Your task to perform on an android device: Go to battery settings Image 0: 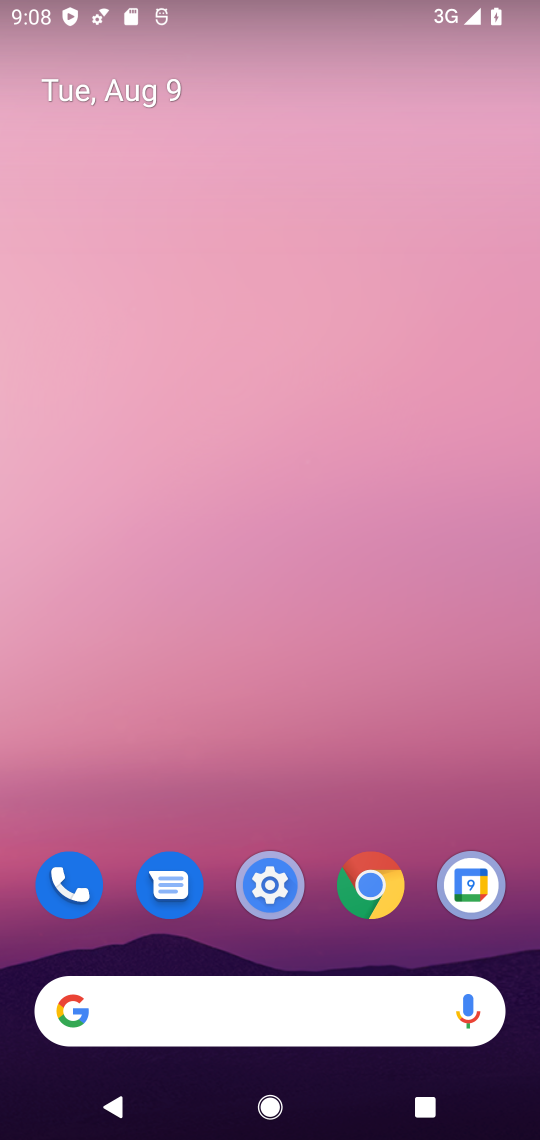
Step 0: press home button
Your task to perform on an android device: Go to battery settings Image 1: 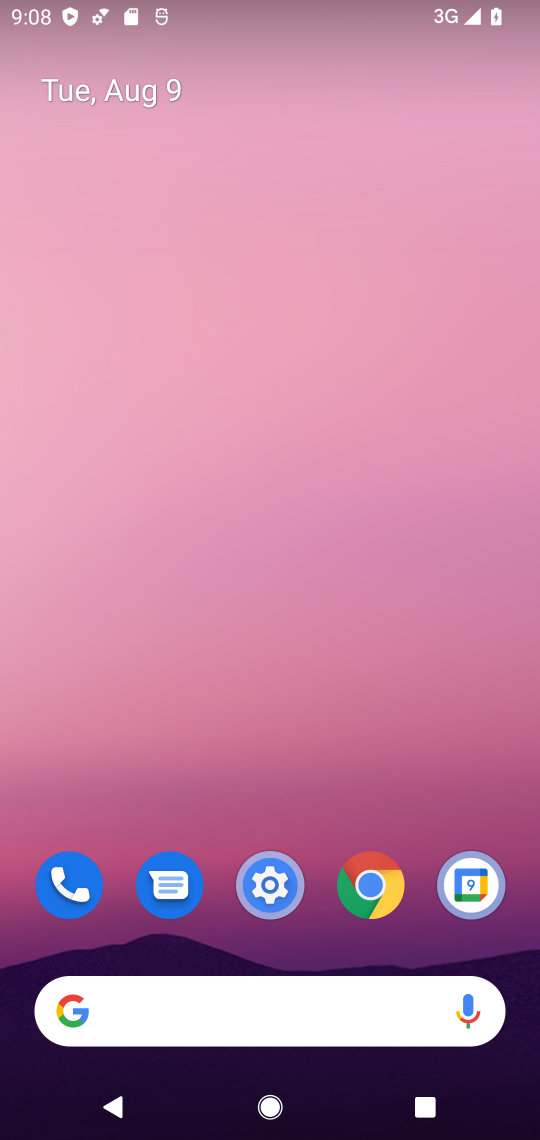
Step 1: click (262, 874)
Your task to perform on an android device: Go to battery settings Image 2: 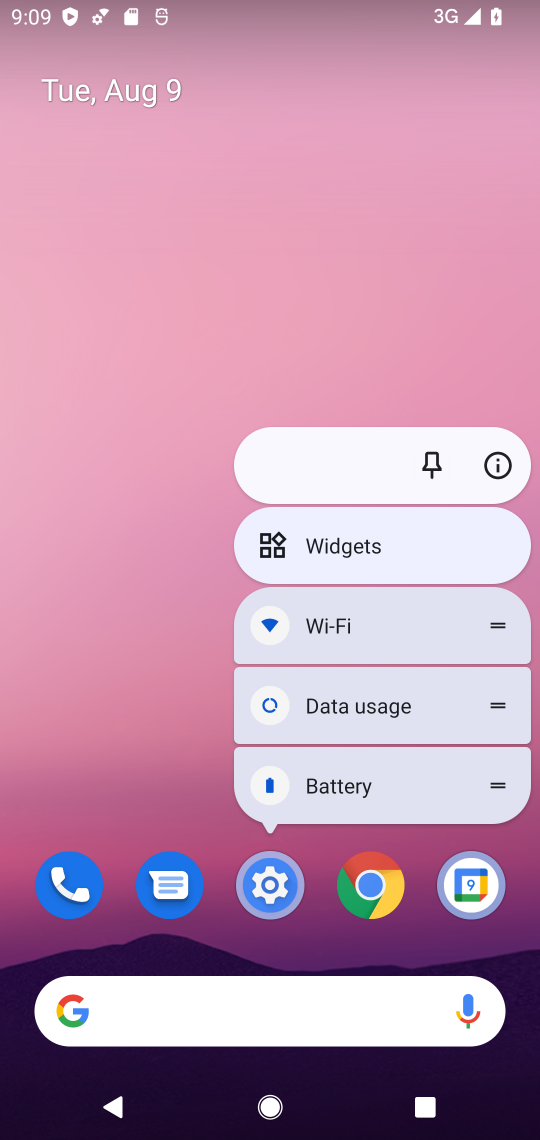
Step 2: click (262, 875)
Your task to perform on an android device: Go to battery settings Image 3: 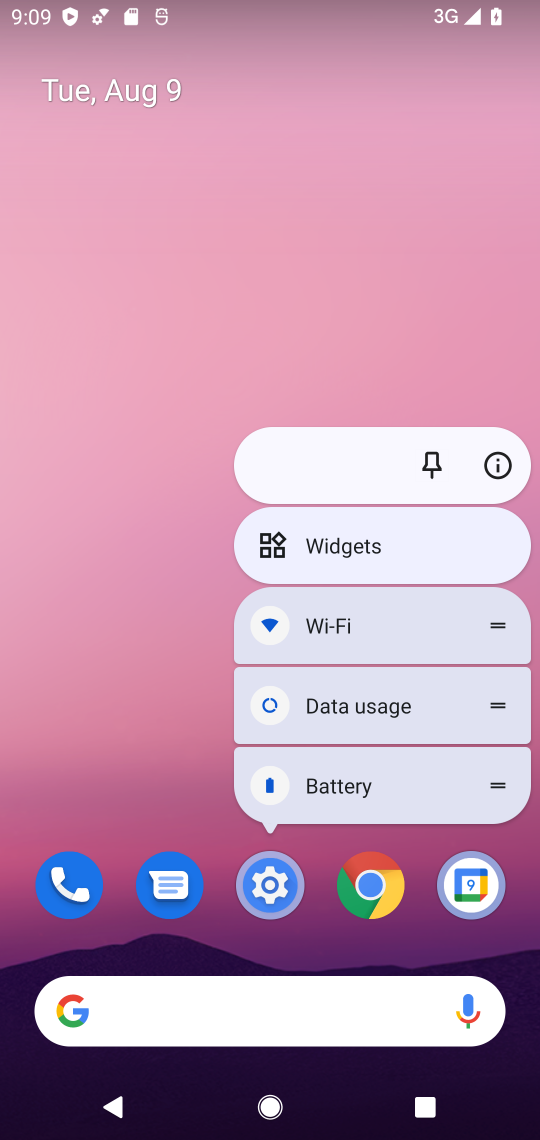
Step 3: click (147, 674)
Your task to perform on an android device: Go to battery settings Image 4: 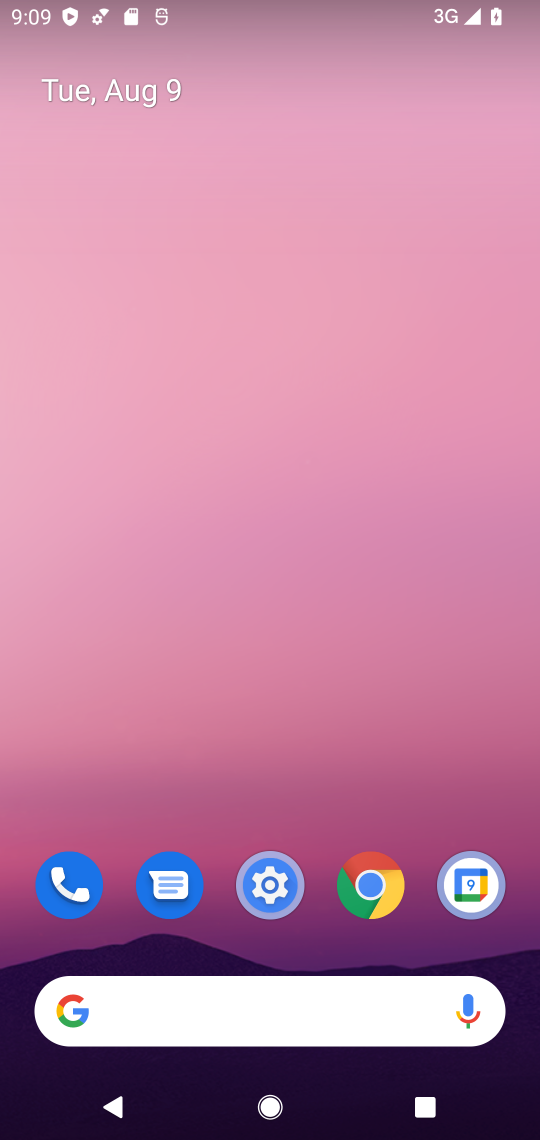
Step 4: drag from (302, 738) to (317, 122)
Your task to perform on an android device: Go to battery settings Image 5: 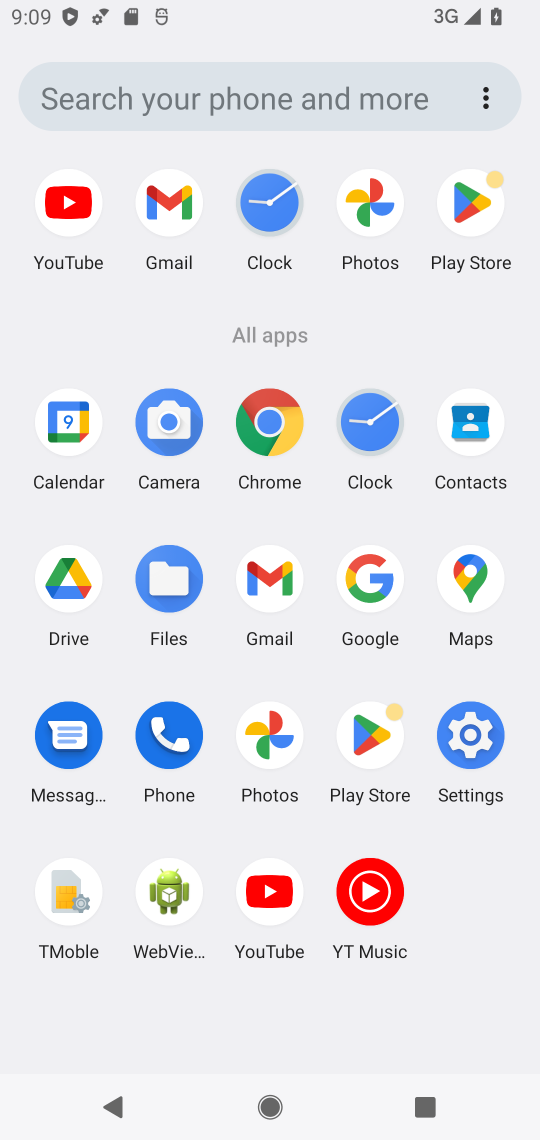
Step 5: click (472, 728)
Your task to perform on an android device: Go to battery settings Image 6: 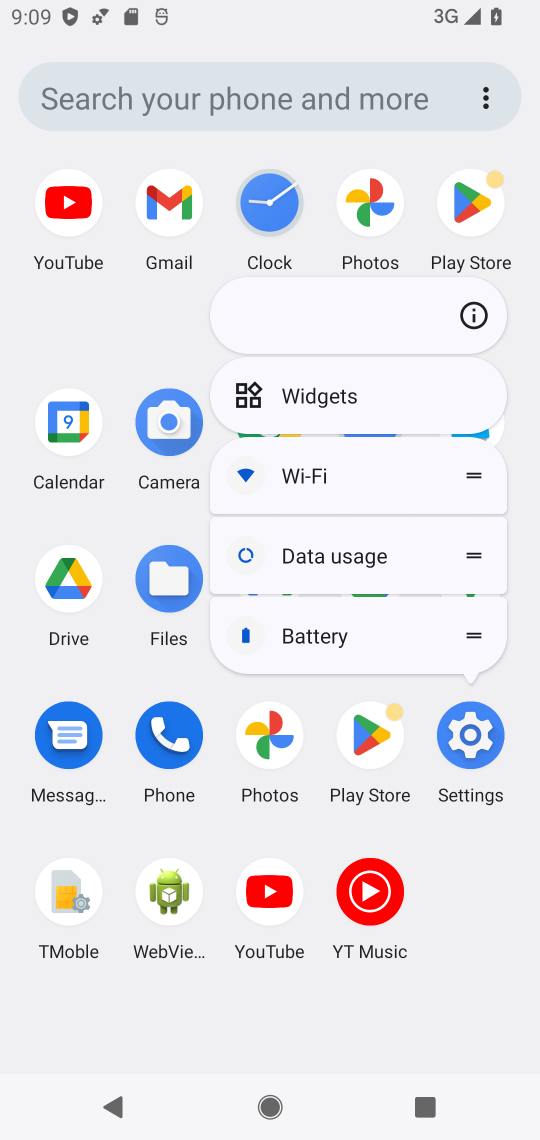
Step 6: click (469, 725)
Your task to perform on an android device: Go to battery settings Image 7: 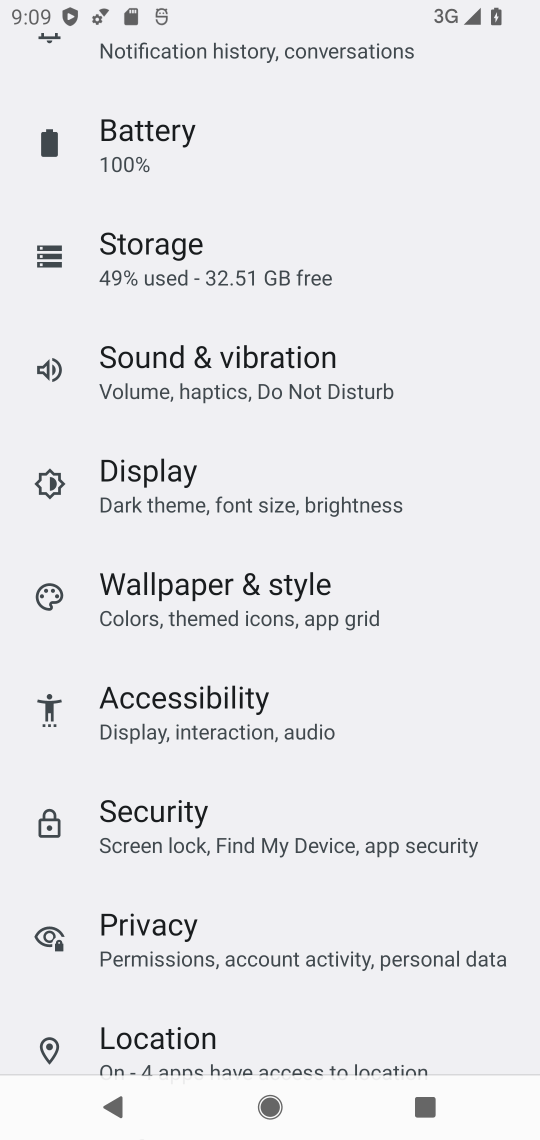
Step 7: click (160, 143)
Your task to perform on an android device: Go to battery settings Image 8: 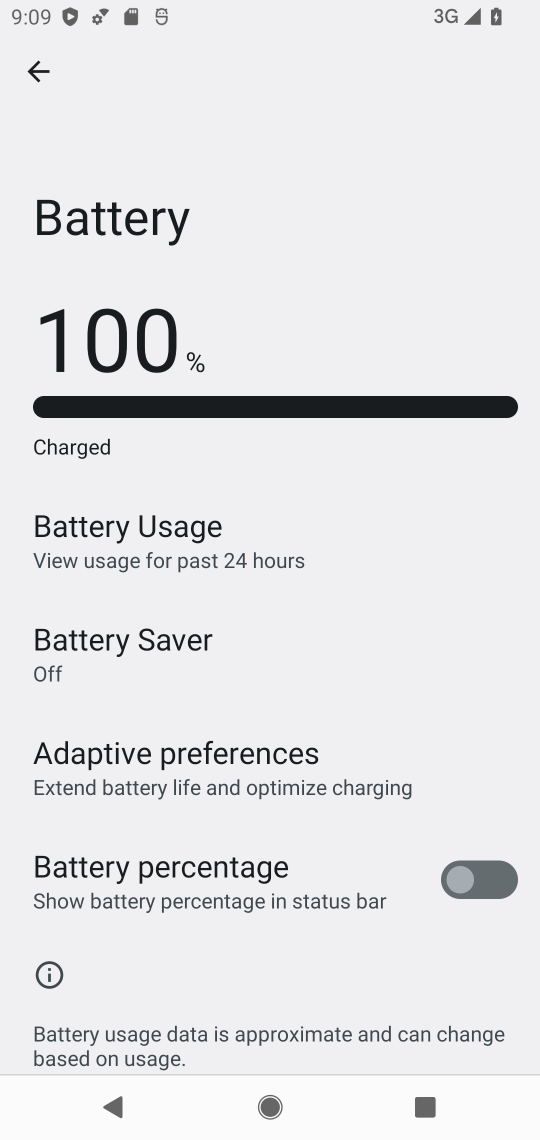
Step 8: task complete